Your task to perform on an android device: turn on showing notifications on the lock screen Image 0: 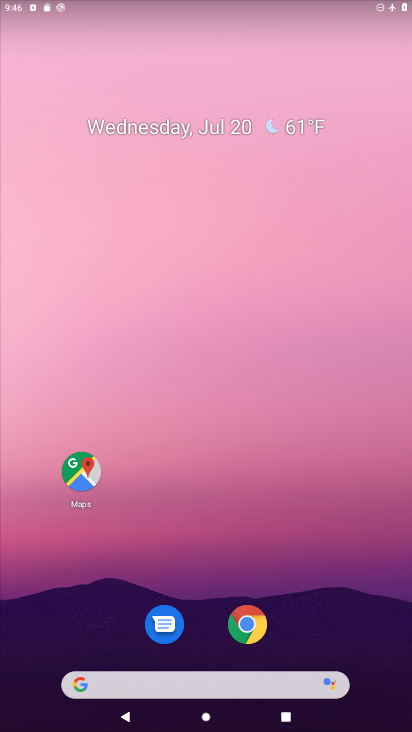
Step 0: drag from (201, 588) to (259, 97)
Your task to perform on an android device: turn on showing notifications on the lock screen Image 1: 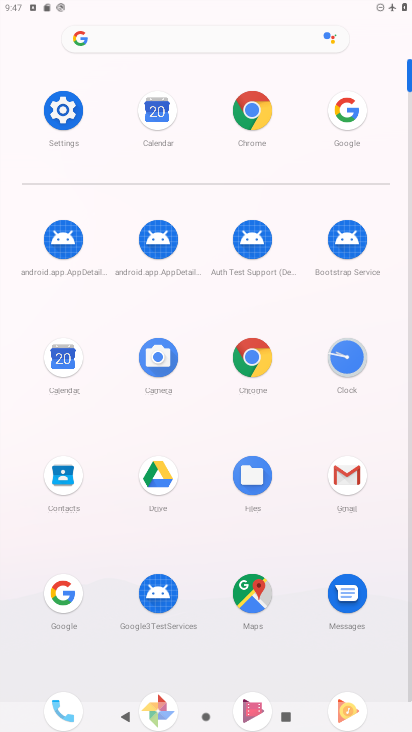
Step 1: click (41, 108)
Your task to perform on an android device: turn on showing notifications on the lock screen Image 2: 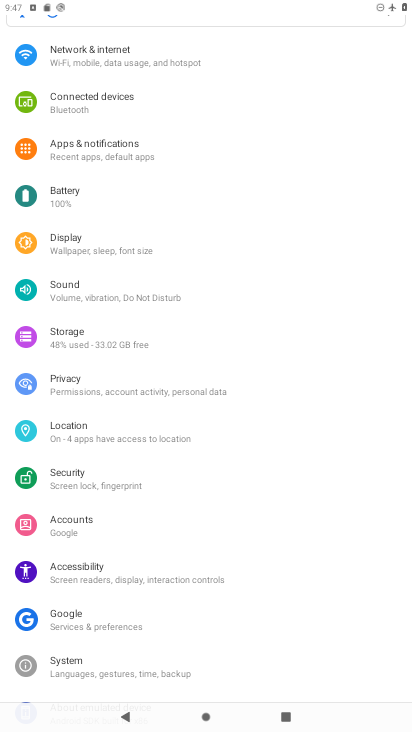
Step 2: click (156, 152)
Your task to perform on an android device: turn on showing notifications on the lock screen Image 3: 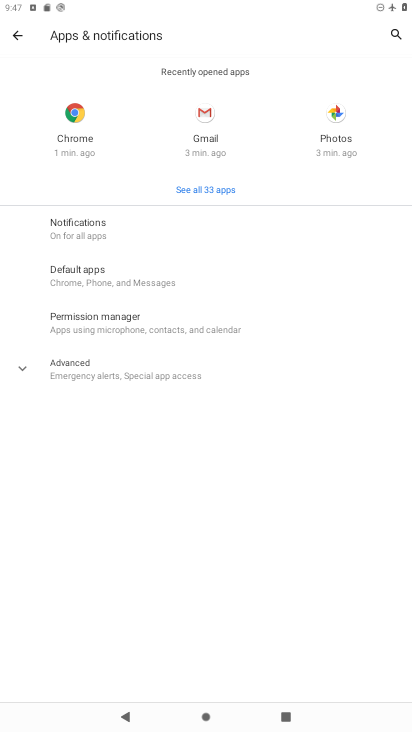
Step 3: click (101, 220)
Your task to perform on an android device: turn on showing notifications on the lock screen Image 4: 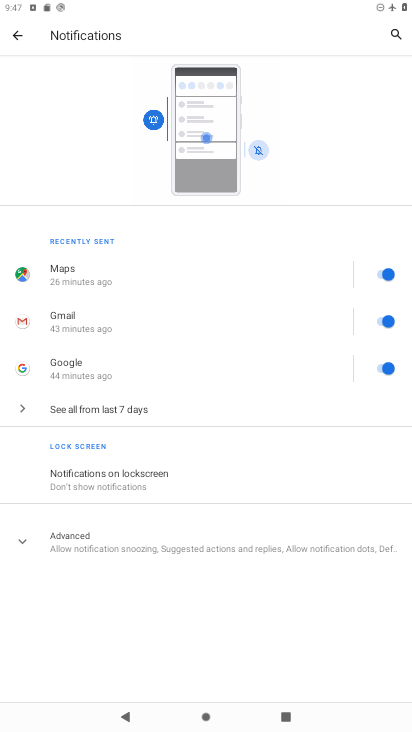
Step 4: click (219, 475)
Your task to perform on an android device: turn on showing notifications on the lock screen Image 5: 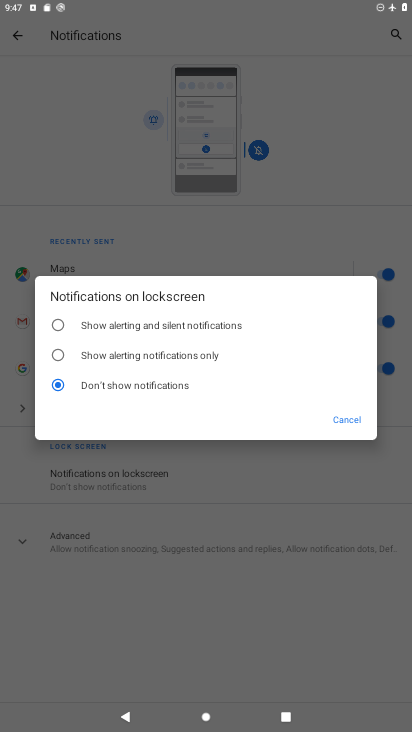
Step 5: click (137, 330)
Your task to perform on an android device: turn on showing notifications on the lock screen Image 6: 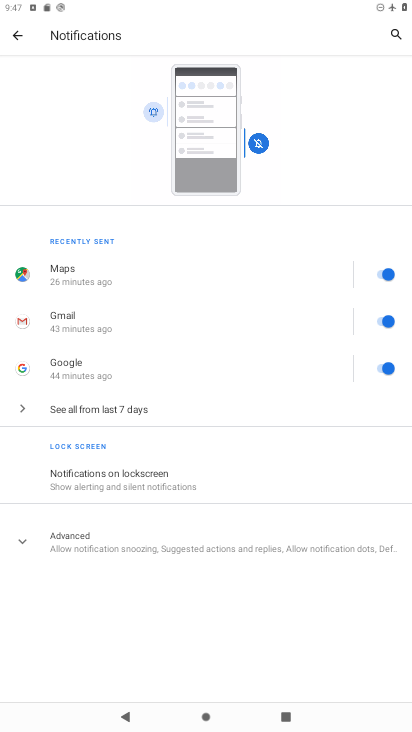
Step 6: task complete